Your task to perform on an android device: choose inbox layout in the gmail app Image 0: 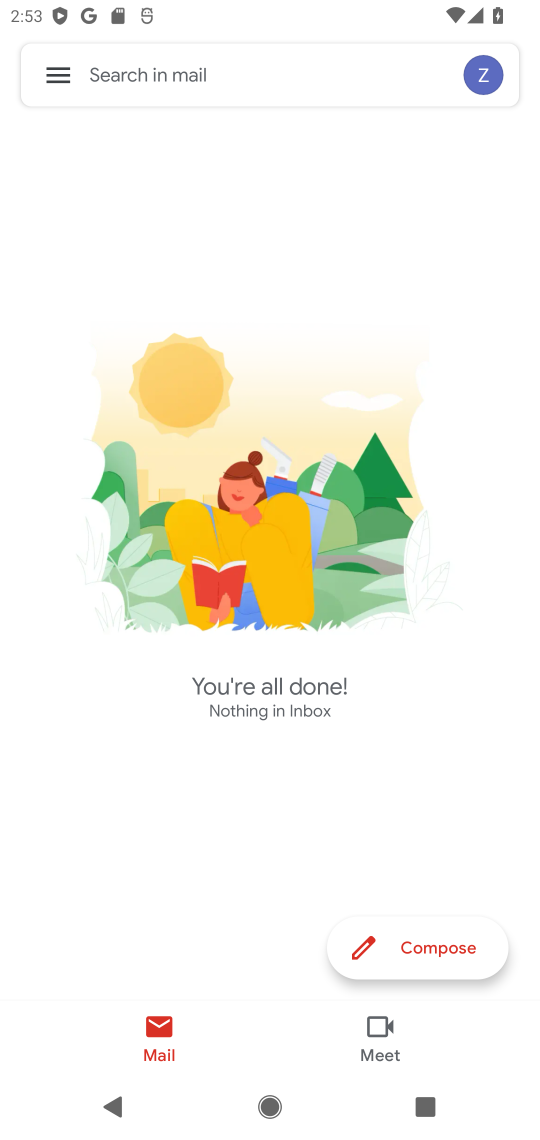
Step 0: press home button
Your task to perform on an android device: choose inbox layout in the gmail app Image 1: 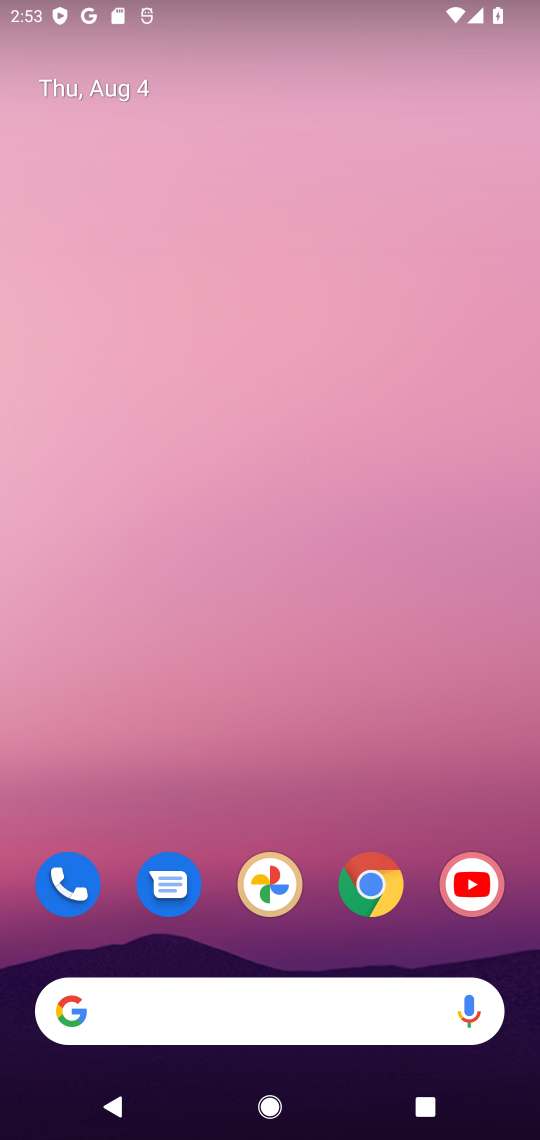
Step 1: drag from (272, 869) to (330, 511)
Your task to perform on an android device: choose inbox layout in the gmail app Image 2: 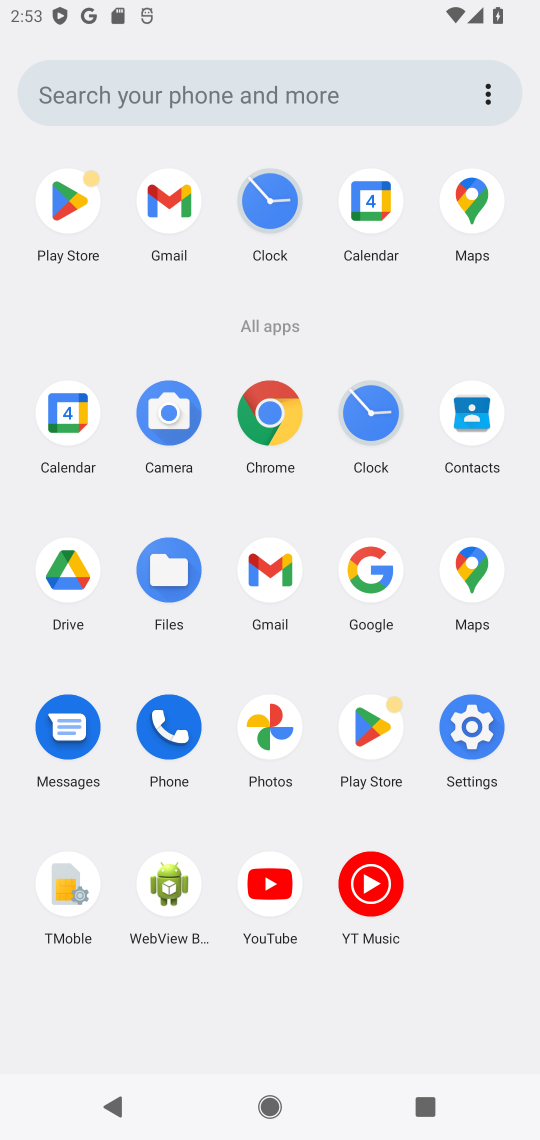
Step 2: click (272, 582)
Your task to perform on an android device: choose inbox layout in the gmail app Image 3: 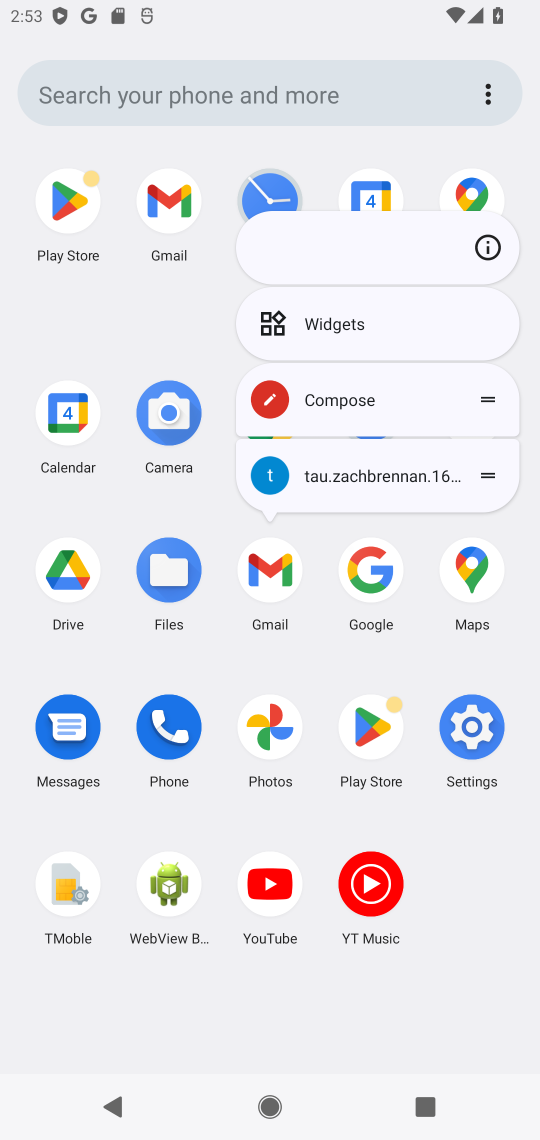
Step 3: click (507, 252)
Your task to perform on an android device: choose inbox layout in the gmail app Image 4: 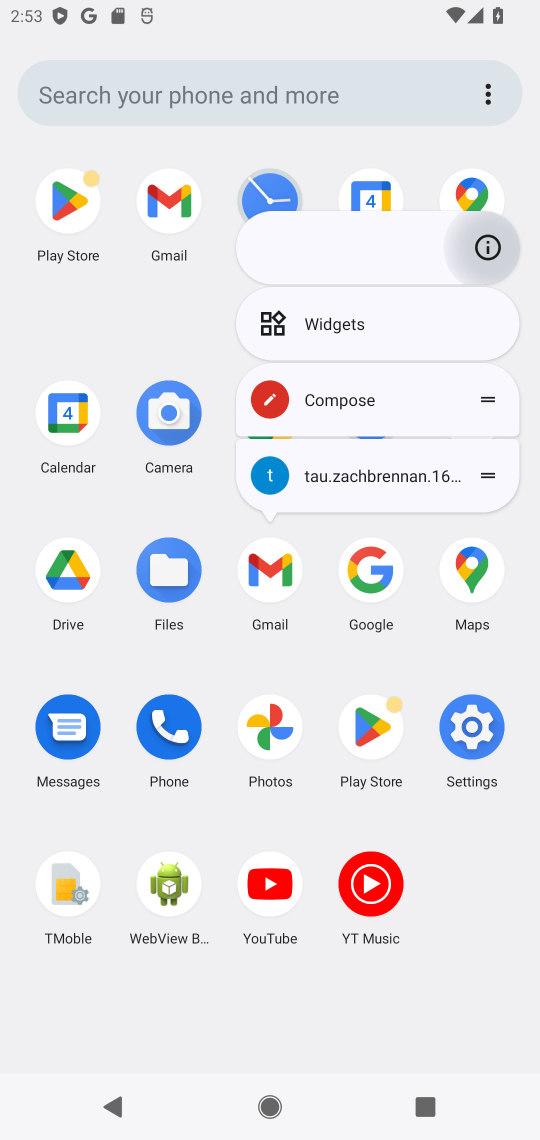
Step 4: click (507, 252)
Your task to perform on an android device: choose inbox layout in the gmail app Image 5: 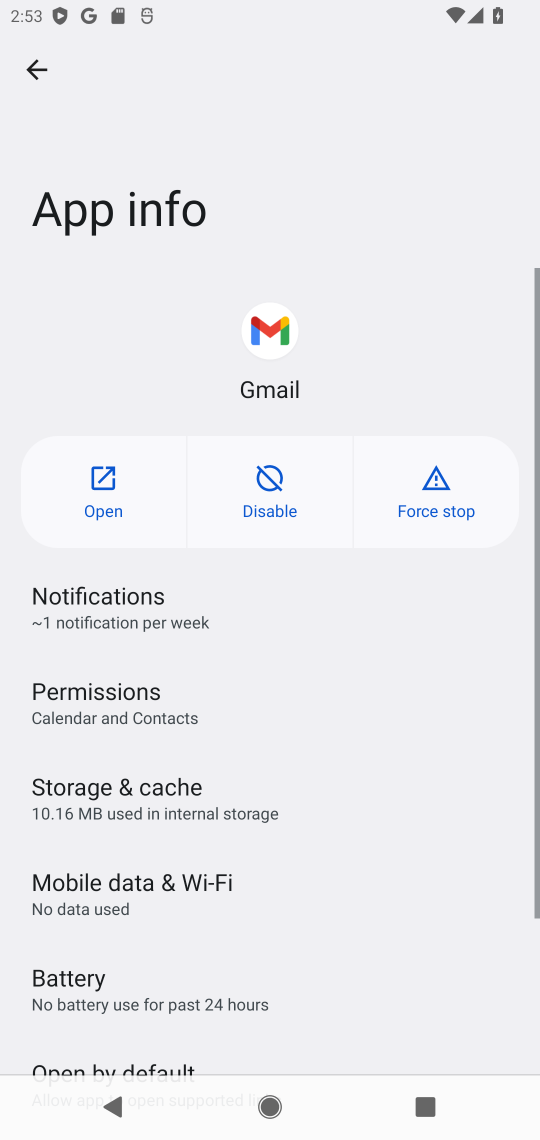
Step 5: click (97, 497)
Your task to perform on an android device: choose inbox layout in the gmail app Image 6: 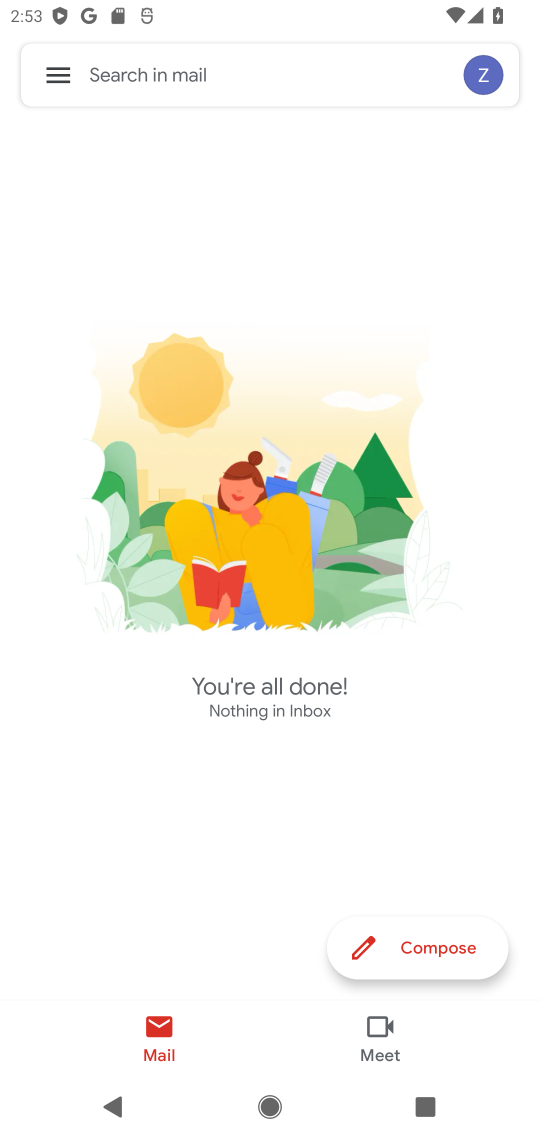
Step 6: click (51, 81)
Your task to perform on an android device: choose inbox layout in the gmail app Image 7: 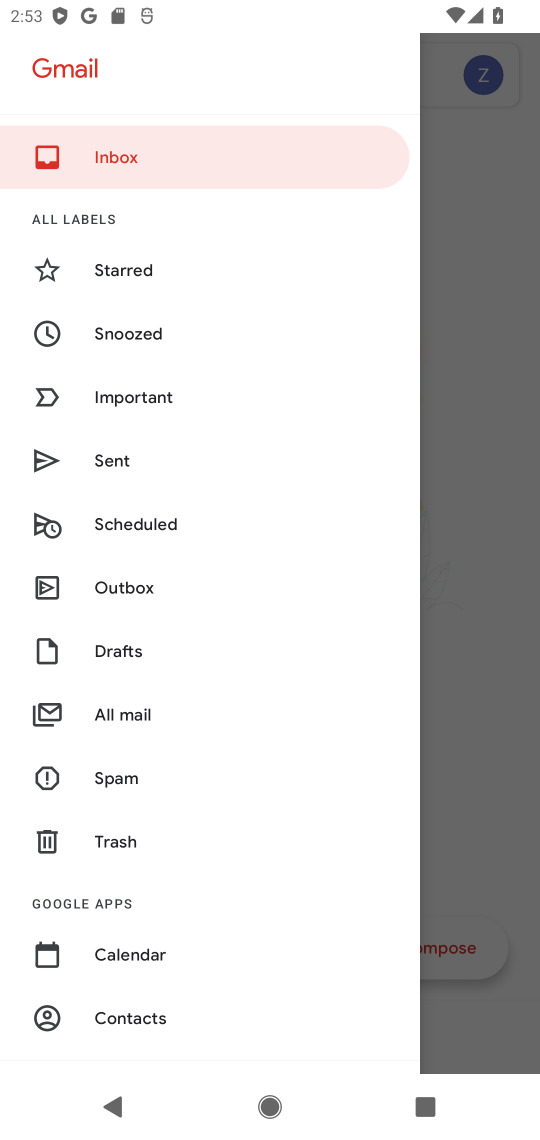
Step 7: click (189, 143)
Your task to perform on an android device: choose inbox layout in the gmail app Image 8: 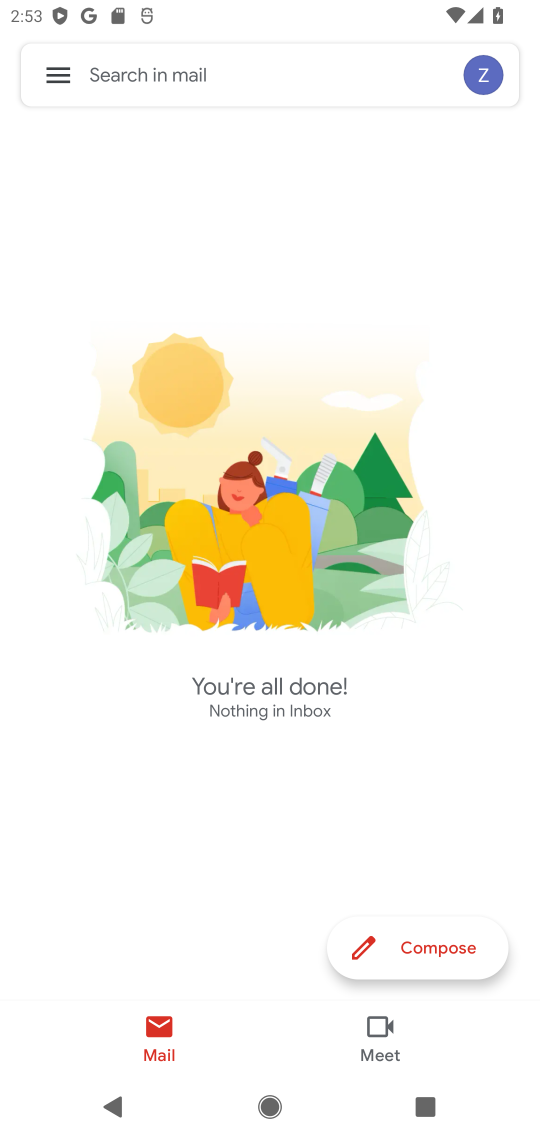
Step 8: task complete